Your task to perform on an android device: Search for Mexican restaurants on Maps Image 0: 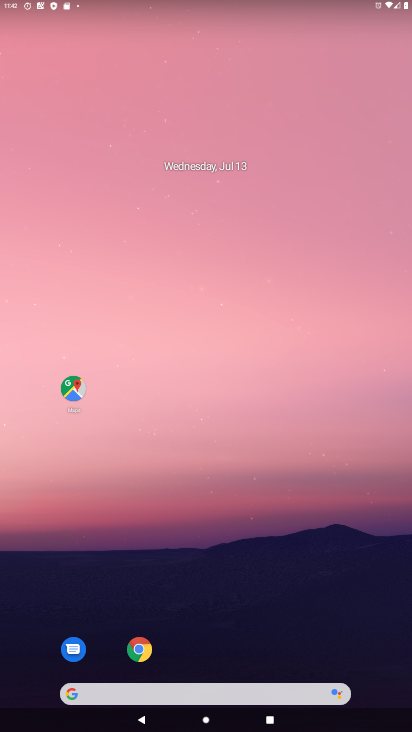
Step 0: click (73, 389)
Your task to perform on an android device: Search for Mexican restaurants on Maps Image 1: 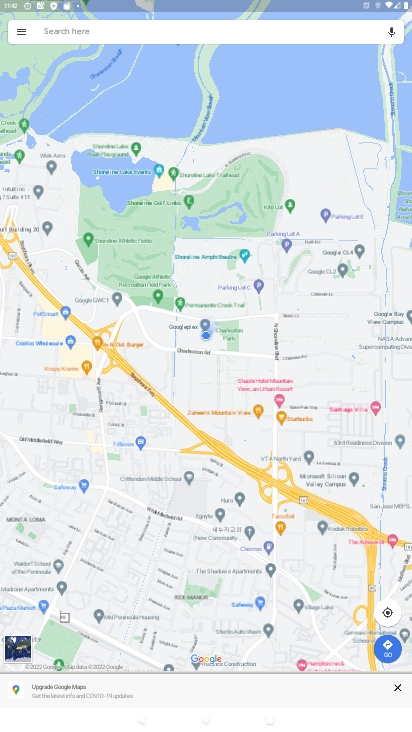
Step 1: click (190, 31)
Your task to perform on an android device: Search for Mexican restaurants on Maps Image 2: 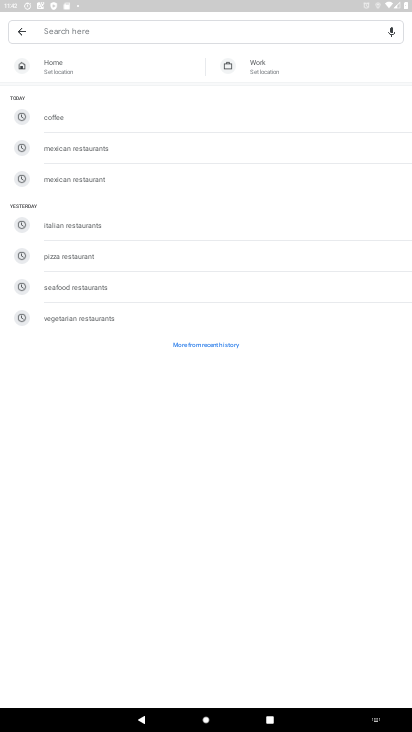
Step 2: type "Mexican restaurants"
Your task to perform on an android device: Search for Mexican restaurants on Maps Image 3: 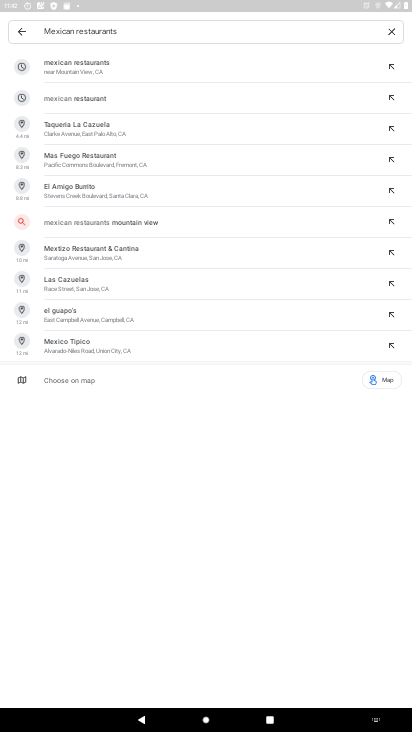
Step 3: click (101, 73)
Your task to perform on an android device: Search for Mexican restaurants on Maps Image 4: 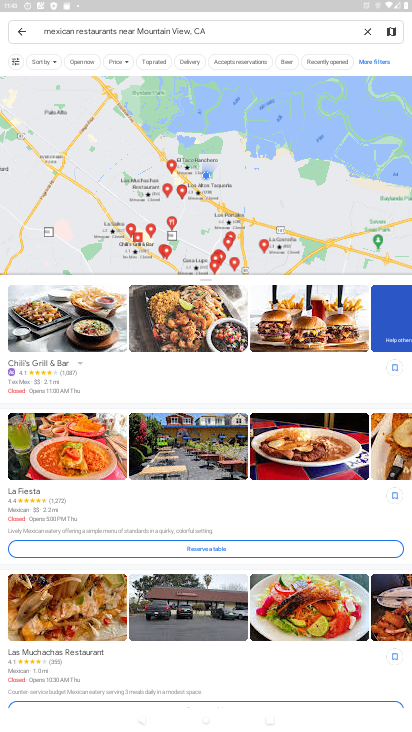
Step 4: task complete